Your task to perform on an android device: What's on my calendar today? Image 0: 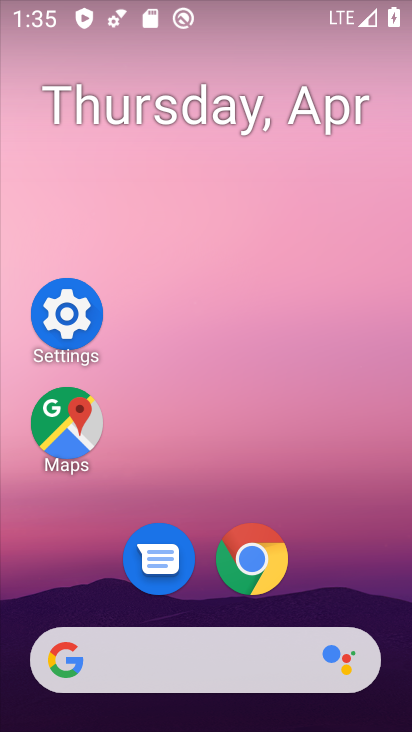
Step 0: drag from (214, 586) to (246, 75)
Your task to perform on an android device: What's on my calendar today? Image 1: 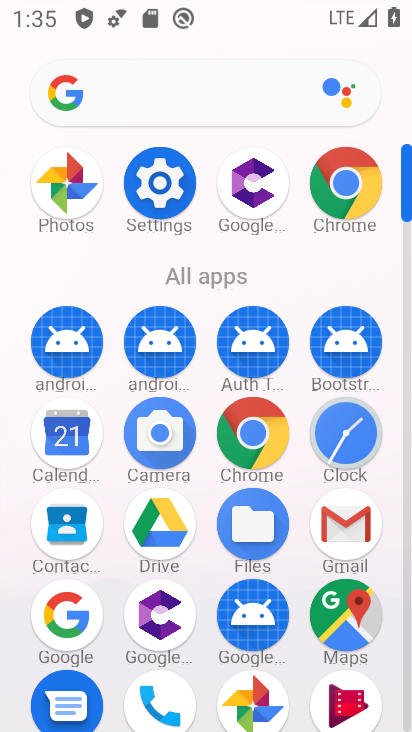
Step 1: drag from (73, 450) to (95, 237)
Your task to perform on an android device: What's on my calendar today? Image 2: 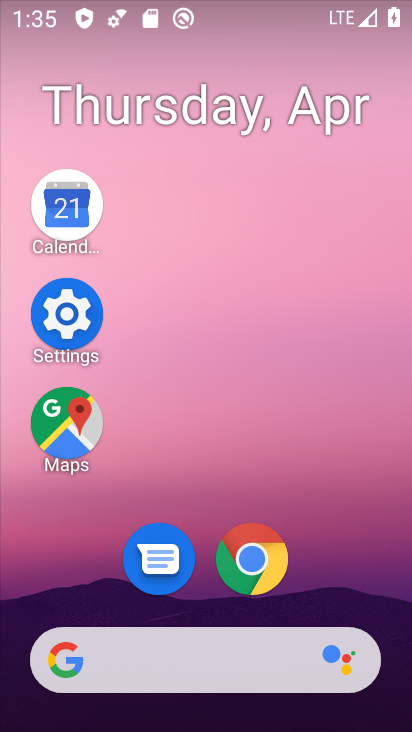
Step 2: click (63, 223)
Your task to perform on an android device: What's on my calendar today? Image 3: 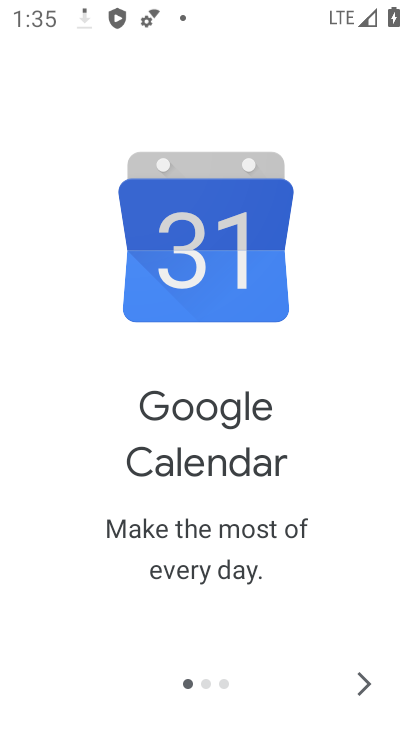
Step 3: click (371, 677)
Your task to perform on an android device: What's on my calendar today? Image 4: 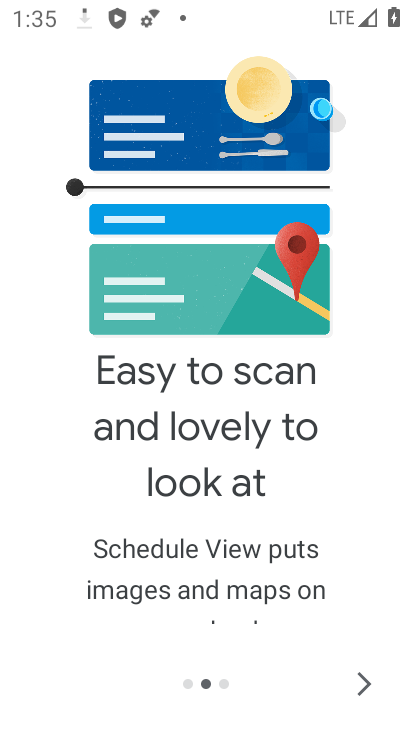
Step 4: click (371, 677)
Your task to perform on an android device: What's on my calendar today? Image 5: 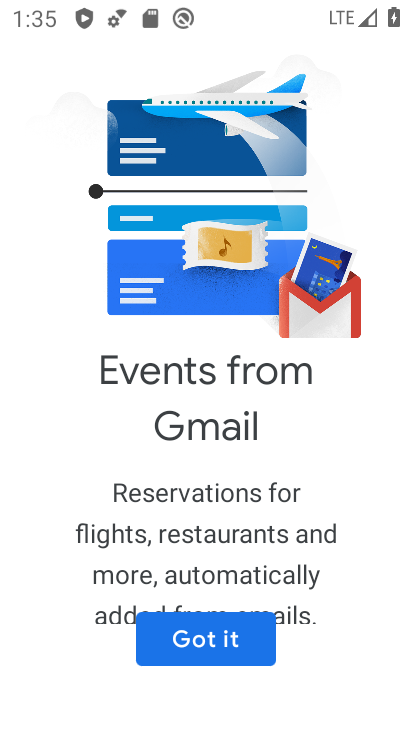
Step 5: click (176, 652)
Your task to perform on an android device: What's on my calendar today? Image 6: 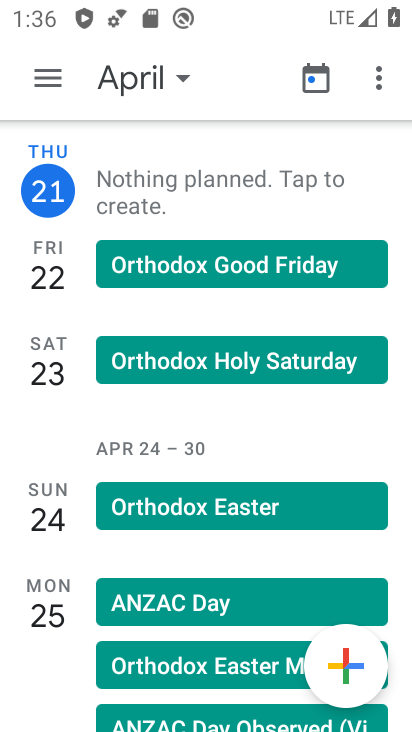
Step 6: click (32, 68)
Your task to perform on an android device: What's on my calendar today? Image 7: 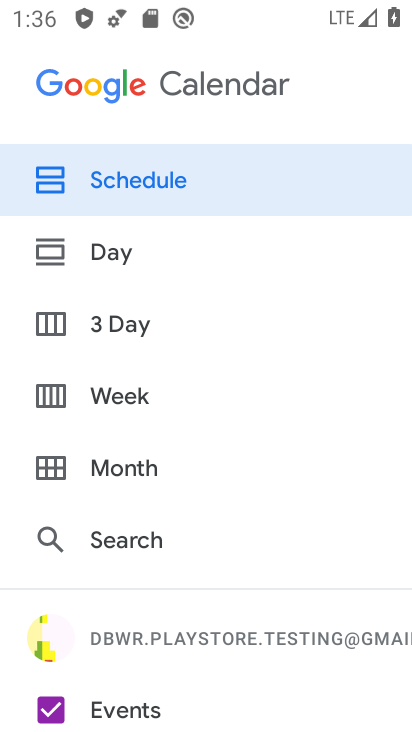
Step 7: click (122, 246)
Your task to perform on an android device: What's on my calendar today? Image 8: 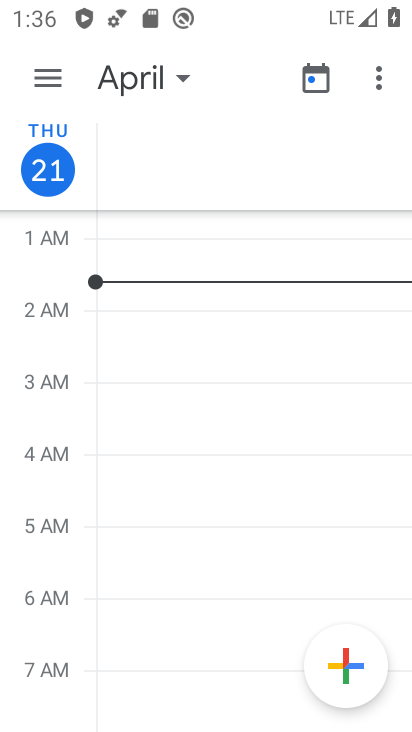
Step 8: task complete